Your task to perform on an android device: toggle wifi Image 0: 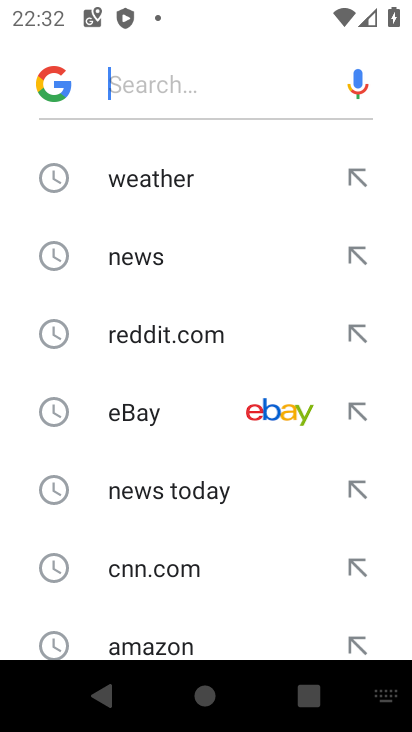
Step 0: drag from (209, 4) to (168, 544)
Your task to perform on an android device: toggle wifi Image 1: 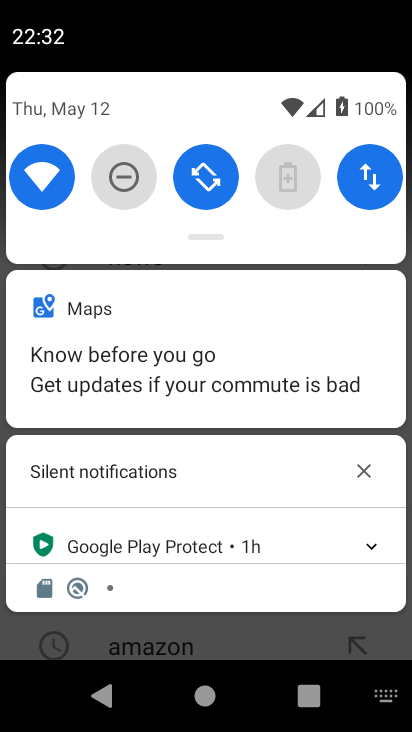
Step 1: click (45, 182)
Your task to perform on an android device: toggle wifi Image 2: 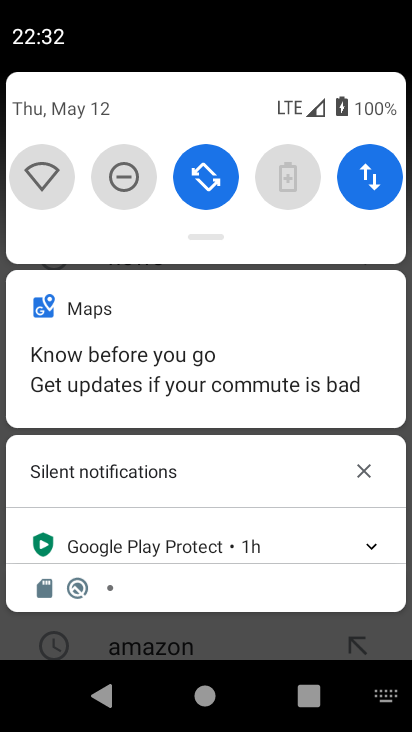
Step 2: click (45, 182)
Your task to perform on an android device: toggle wifi Image 3: 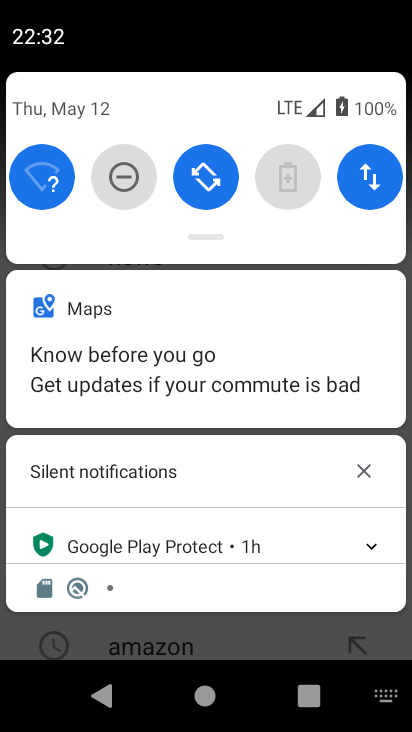
Step 3: task complete